Your task to perform on an android device: Turn off the flashlight Image 0: 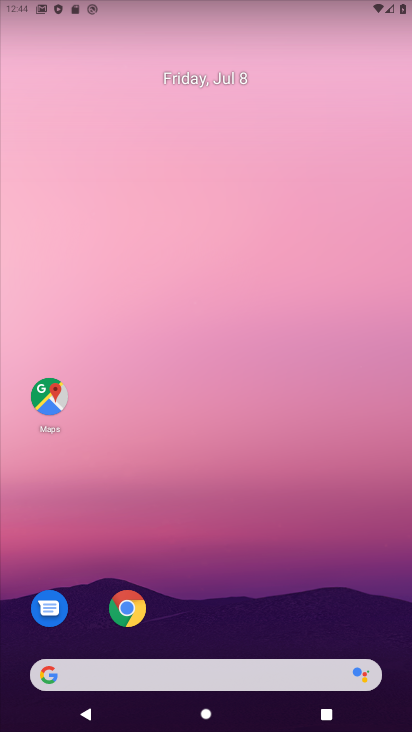
Step 0: drag from (231, 12) to (244, 372)
Your task to perform on an android device: Turn off the flashlight Image 1: 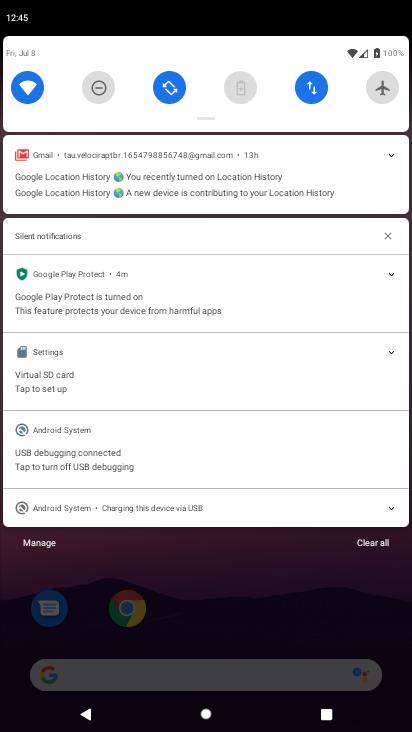
Step 1: drag from (209, 119) to (199, 427)
Your task to perform on an android device: Turn off the flashlight Image 2: 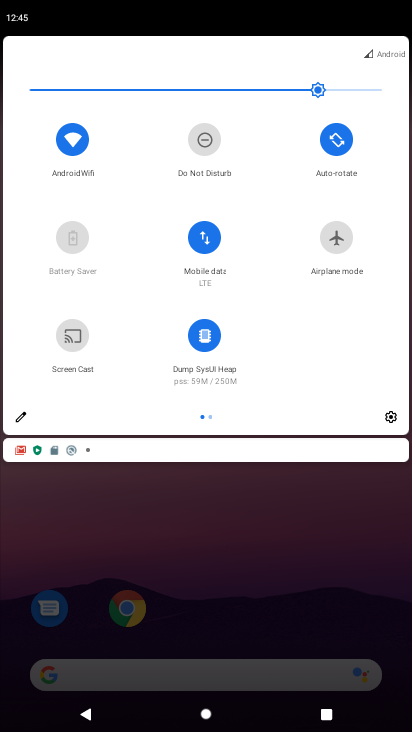
Step 2: click (17, 415)
Your task to perform on an android device: Turn off the flashlight Image 3: 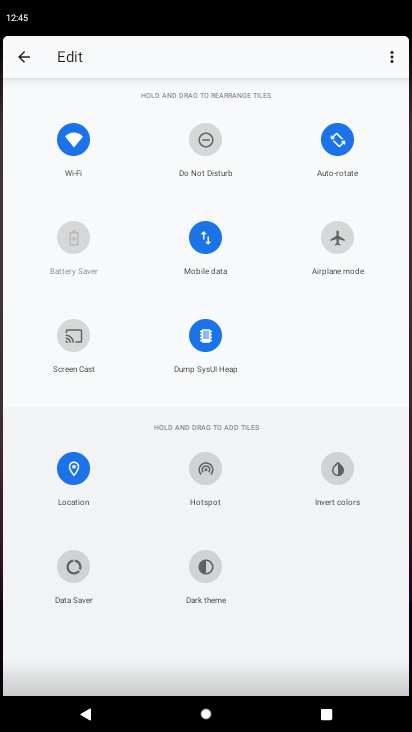
Step 3: task complete